Your task to perform on an android device: Do I have any events today? Image 0: 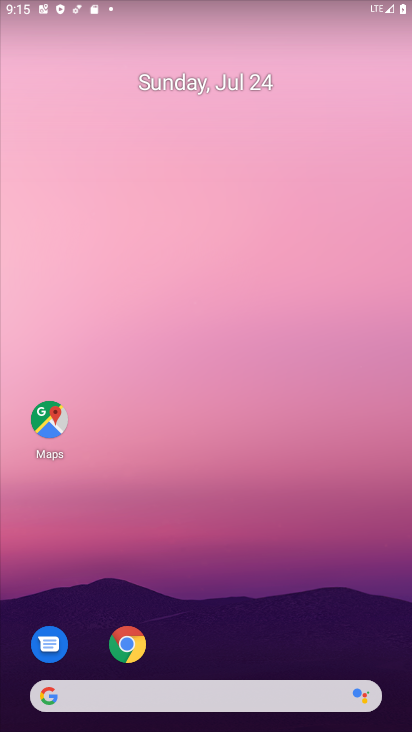
Step 0: press home button
Your task to perform on an android device: Do I have any events today? Image 1: 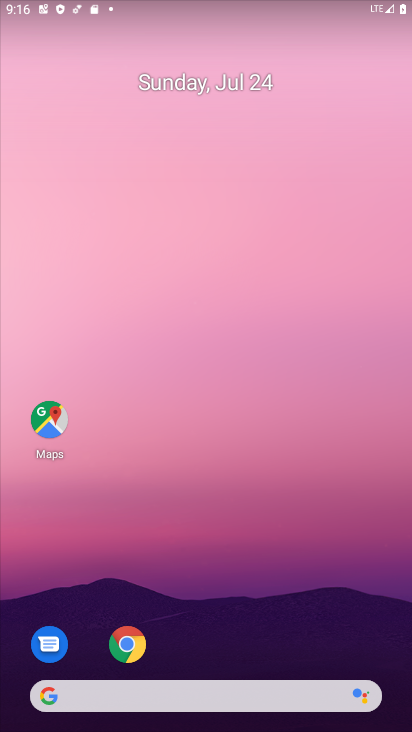
Step 1: drag from (25, 602) to (255, 166)
Your task to perform on an android device: Do I have any events today? Image 2: 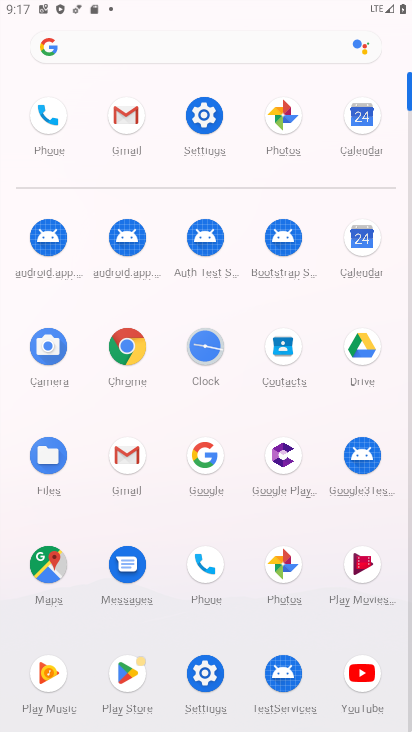
Step 2: click (289, 366)
Your task to perform on an android device: Do I have any events today? Image 3: 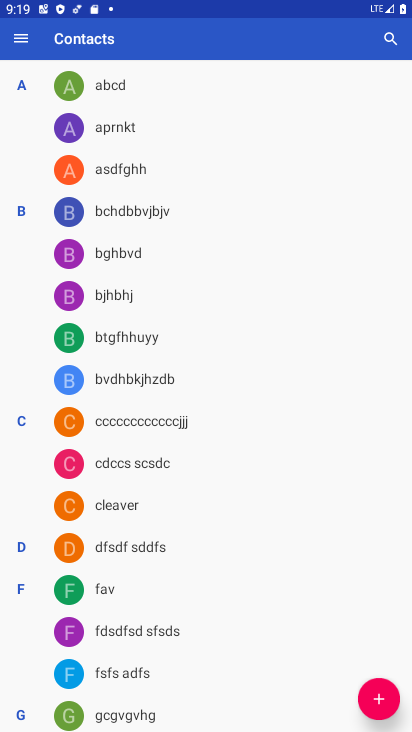
Step 3: task complete